Your task to perform on an android device: open chrome privacy settings Image 0: 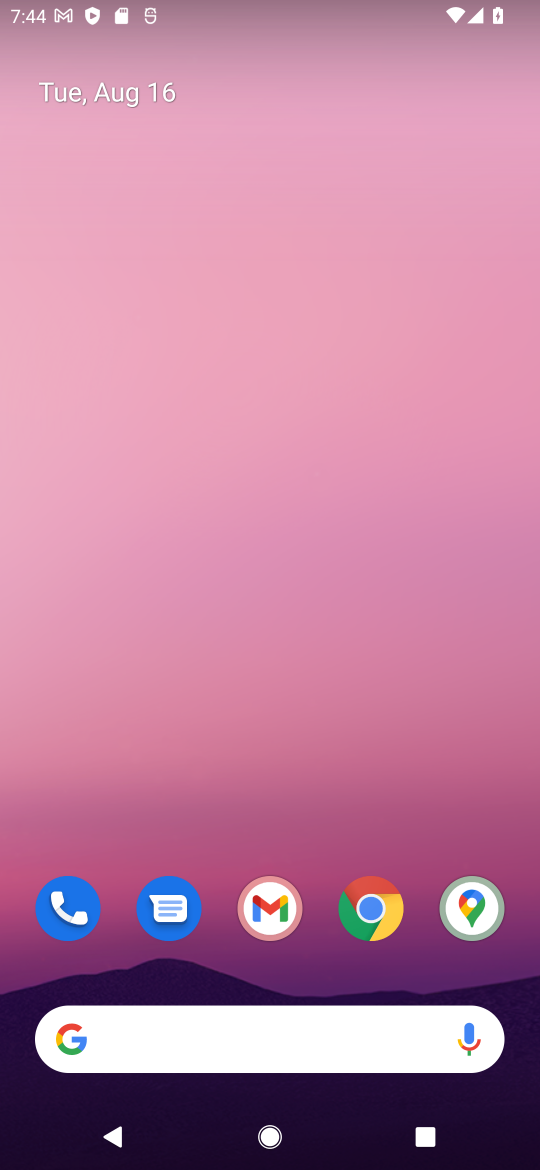
Step 0: click (372, 908)
Your task to perform on an android device: open chrome privacy settings Image 1: 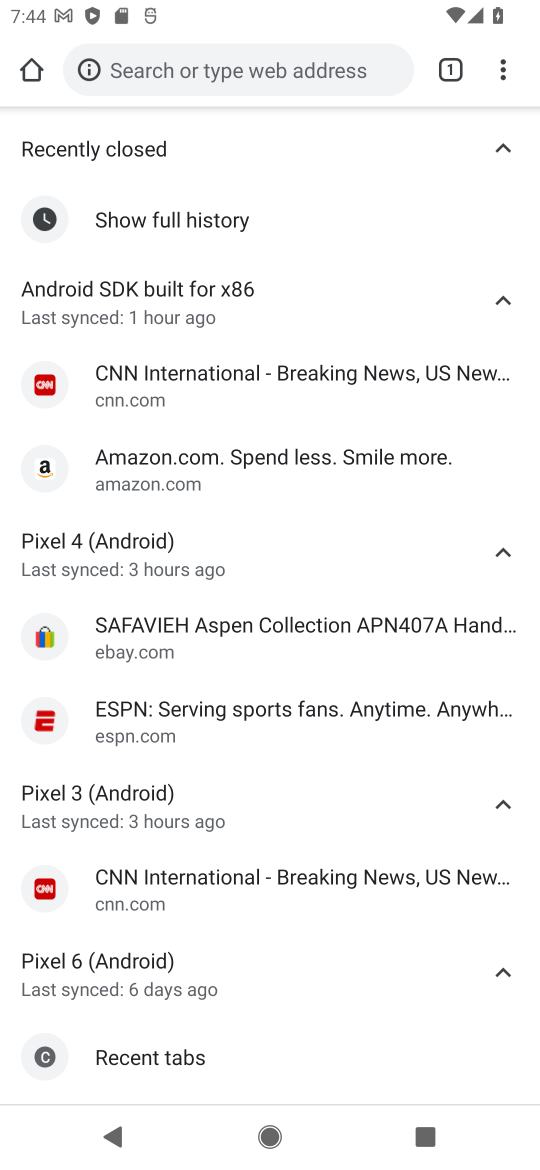
Step 1: click (503, 66)
Your task to perform on an android device: open chrome privacy settings Image 2: 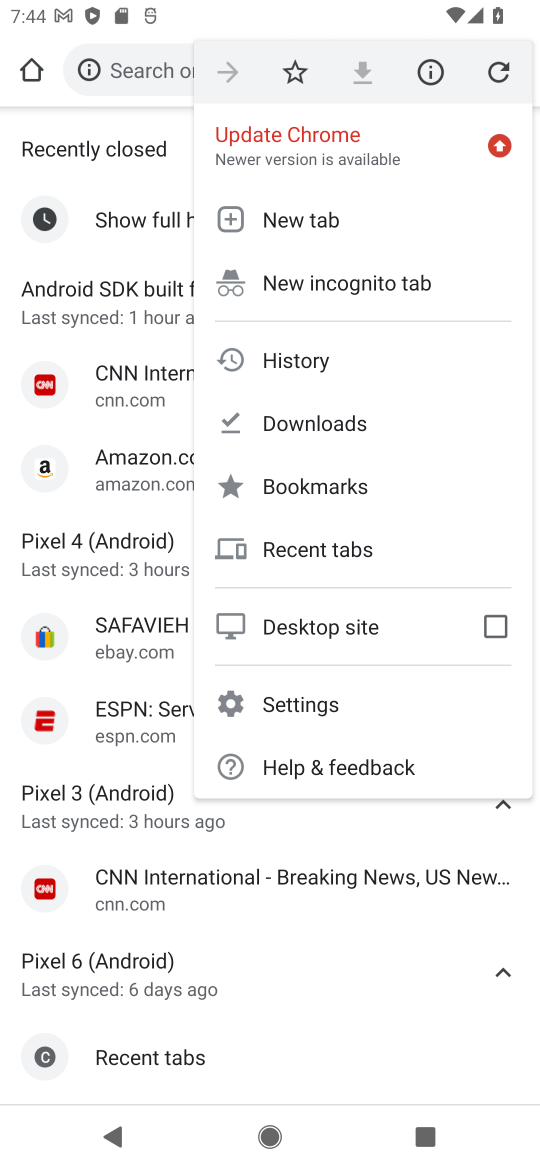
Step 2: click (285, 701)
Your task to perform on an android device: open chrome privacy settings Image 3: 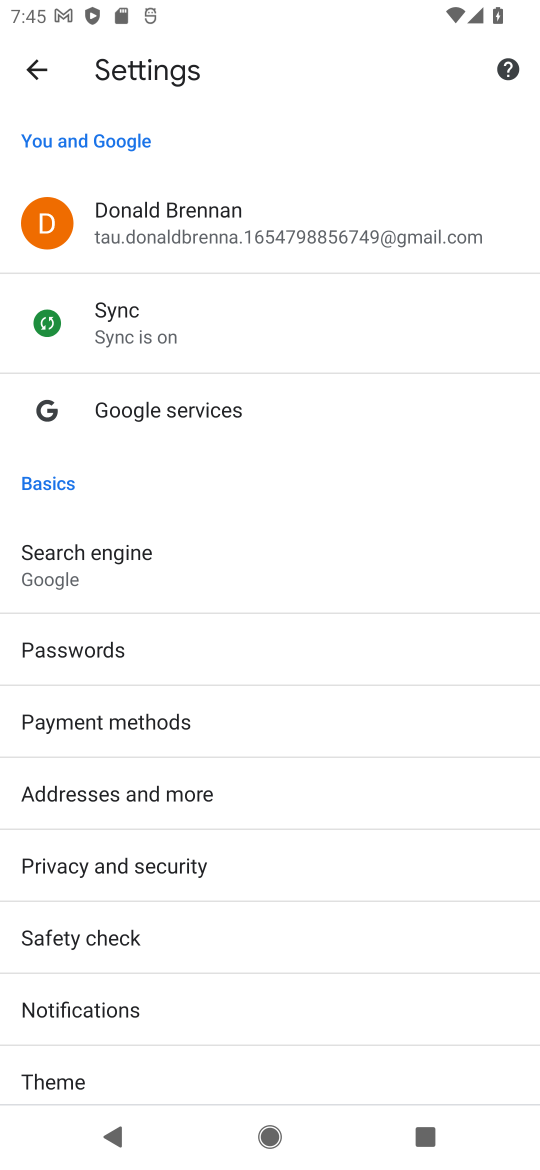
Step 3: click (126, 866)
Your task to perform on an android device: open chrome privacy settings Image 4: 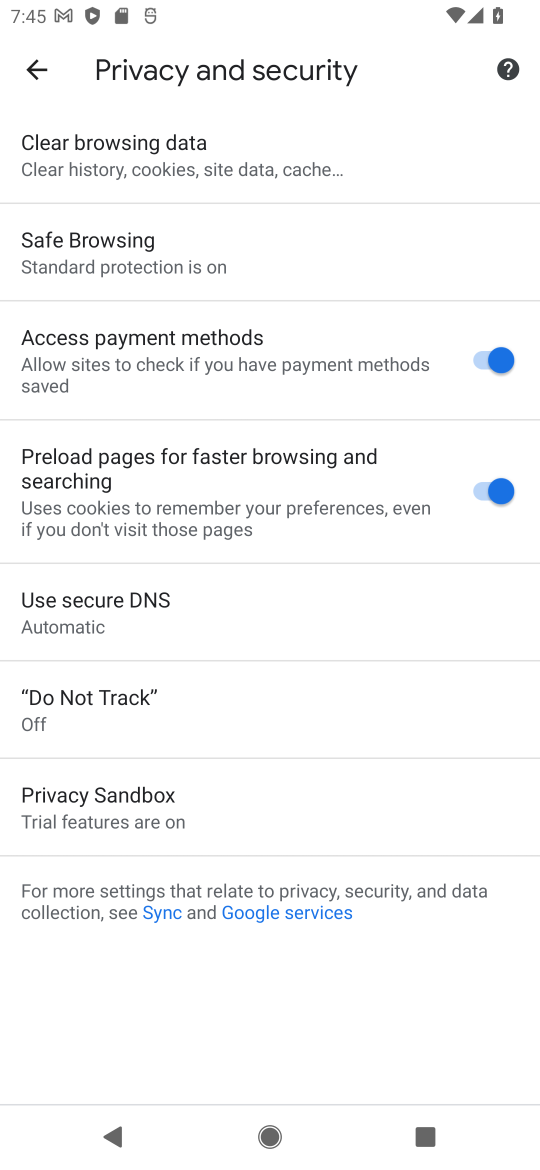
Step 4: task complete